Your task to perform on an android device: Open maps Image 0: 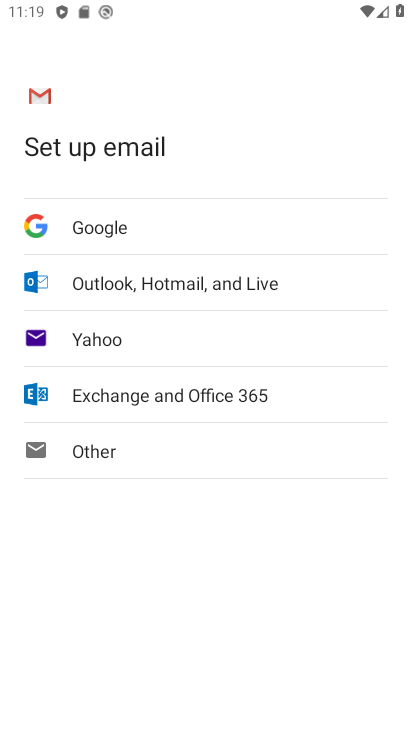
Step 0: press home button
Your task to perform on an android device: Open maps Image 1: 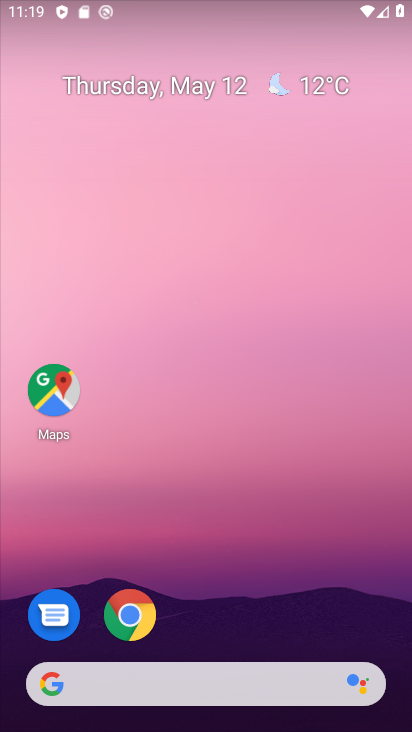
Step 1: click (38, 407)
Your task to perform on an android device: Open maps Image 2: 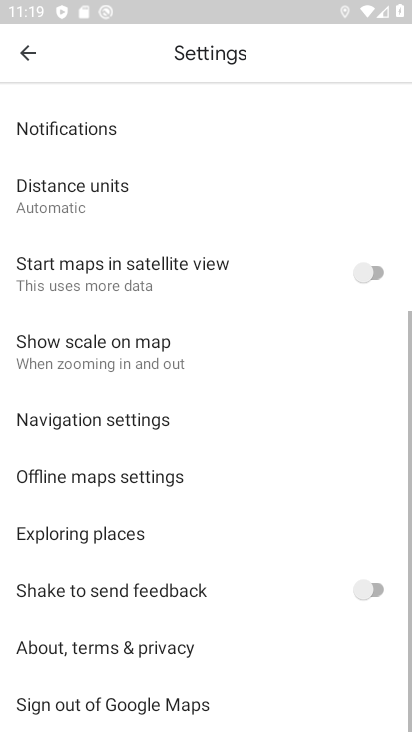
Step 2: drag from (185, 576) to (212, 175)
Your task to perform on an android device: Open maps Image 3: 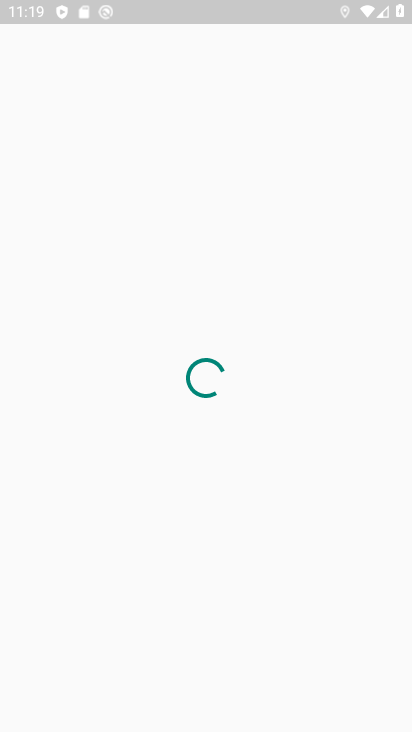
Step 3: click (13, 50)
Your task to perform on an android device: Open maps Image 4: 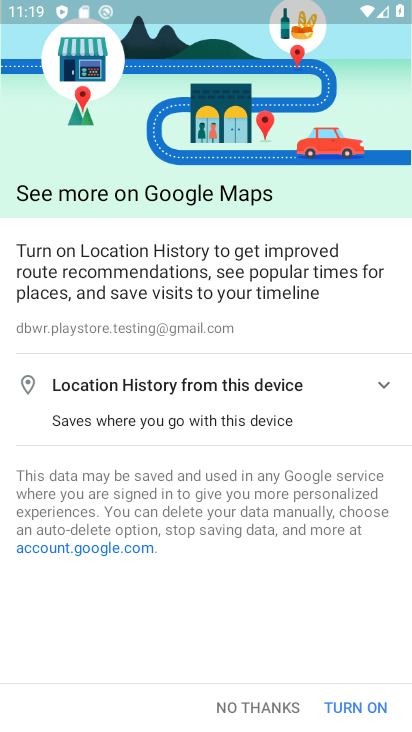
Step 4: click (365, 693)
Your task to perform on an android device: Open maps Image 5: 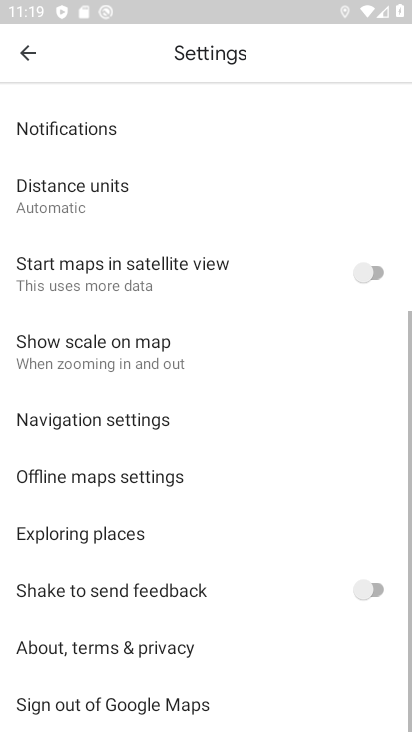
Step 5: click (26, 53)
Your task to perform on an android device: Open maps Image 6: 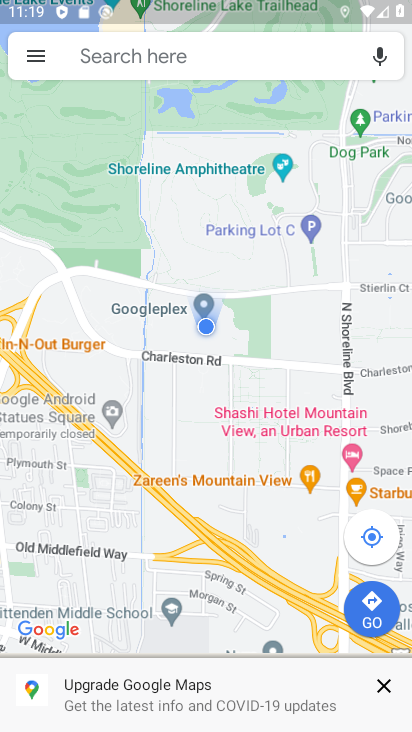
Step 6: task complete